Your task to perform on an android device: turn off wifi Image 0: 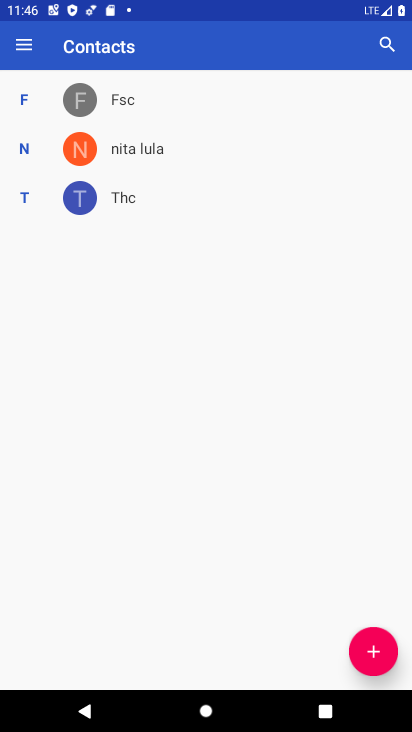
Step 0: press home button
Your task to perform on an android device: turn off wifi Image 1: 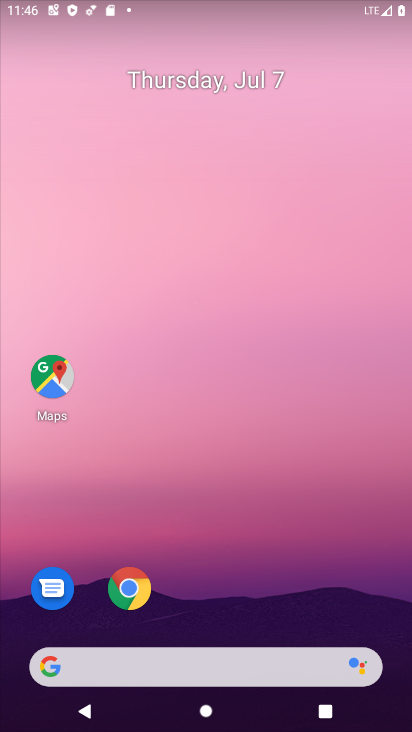
Step 1: drag from (223, 606) to (258, 12)
Your task to perform on an android device: turn off wifi Image 2: 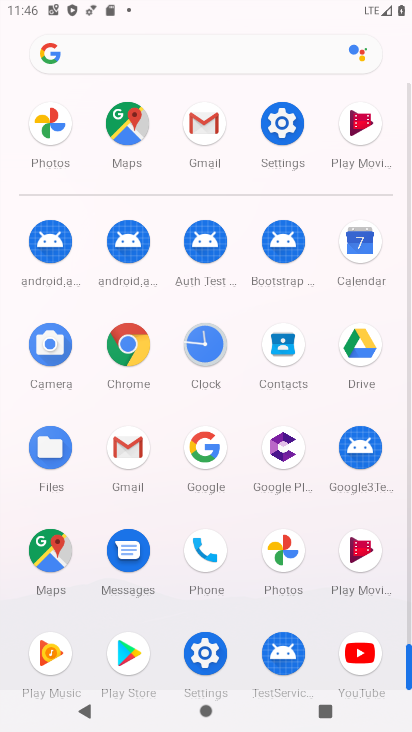
Step 2: click (277, 135)
Your task to perform on an android device: turn off wifi Image 3: 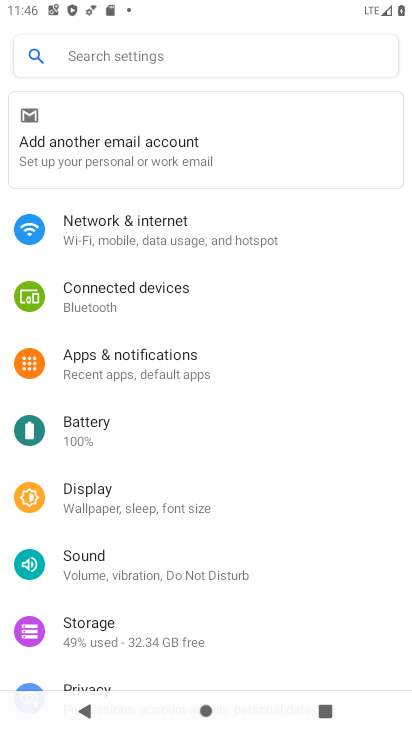
Step 3: click (164, 214)
Your task to perform on an android device: turn off wifi Image 4: 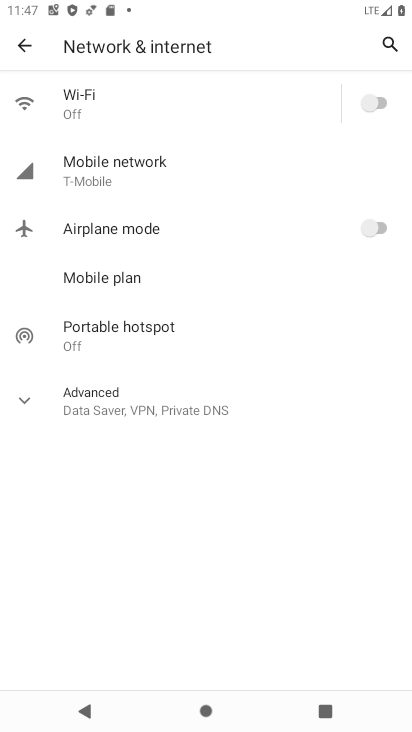
Step 4: task complete